Your task to perform on an android device: turn off wifi Image 0: 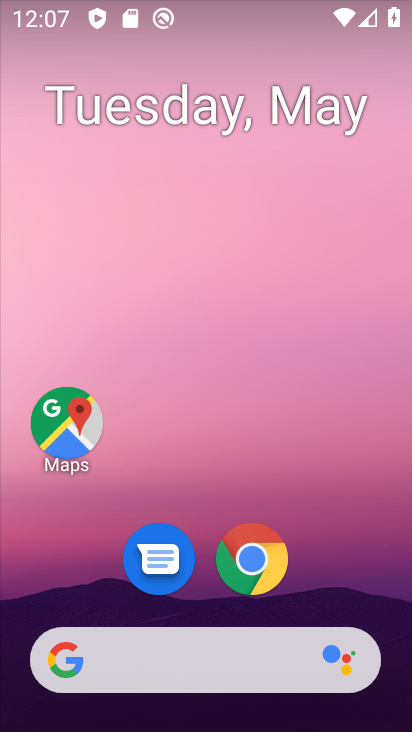
Step 0: drag from (345, 536) to (195, 33)
Your task to perform on an android device: turn off wifi Image 1: 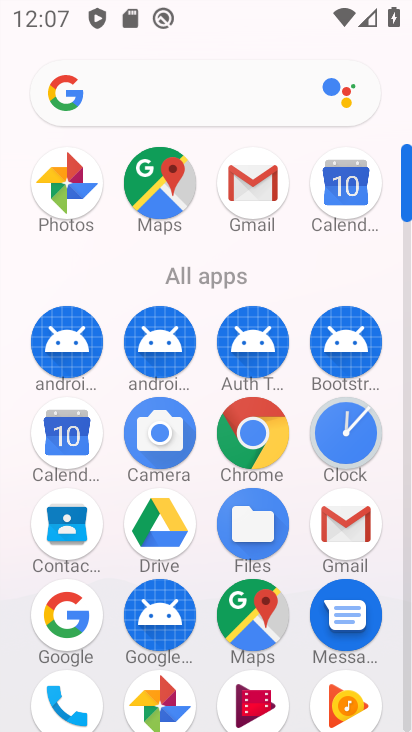
Step 1: drag from (208, 591) to (204, 246)
Your task to perform on an android device: turn off wifi Image 2: 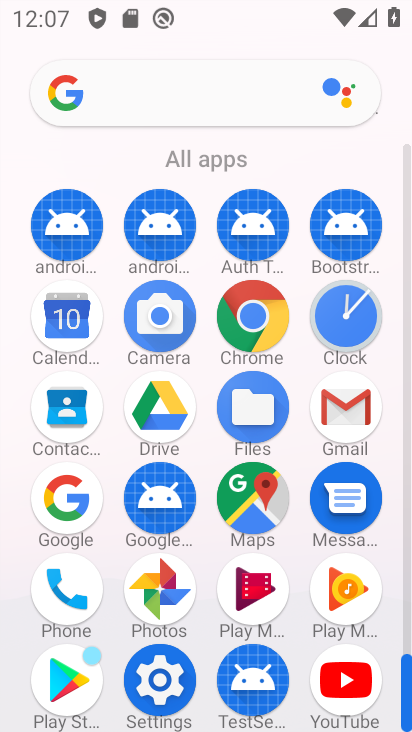
Step 2: click (159, 678)
Your task to perform on an android device: turn off wifi Image 3: 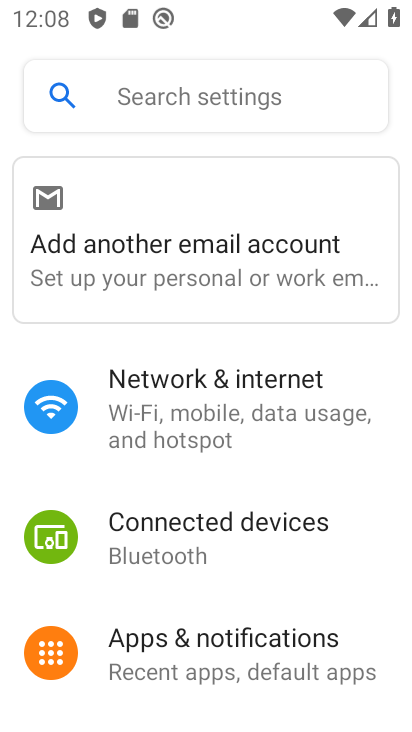
Step 3: click (188, 392)
Your task to perform on an android device: turn off wifi Image 4: 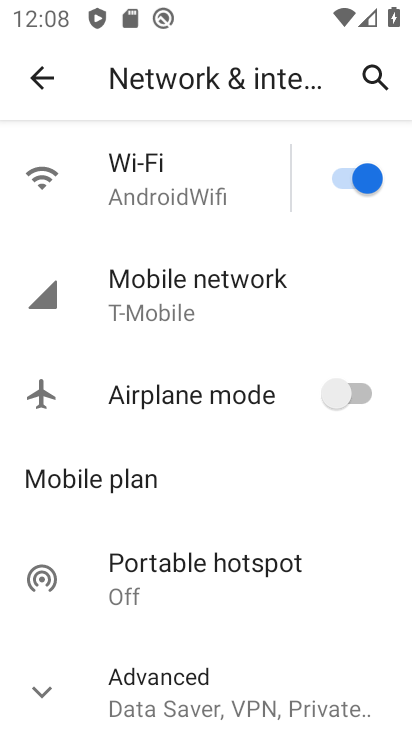
Step 4: click (354, 179)
Your task to perform on an android device: turn off wifi Image 5: 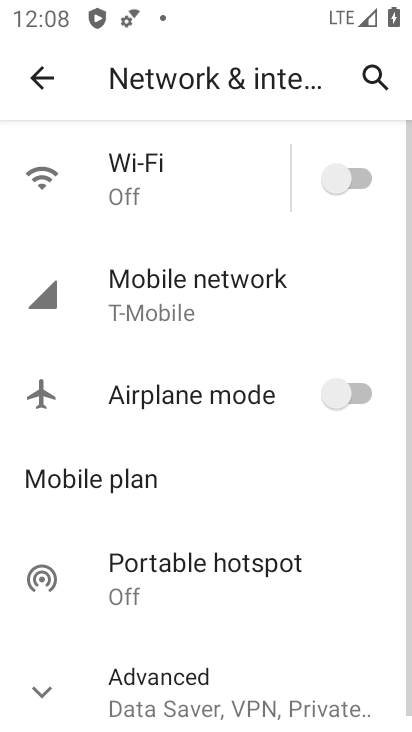
Step 5: task complete